Your task to perform on an android device: Open Youtube and go to the subscriptions tab Image 0: 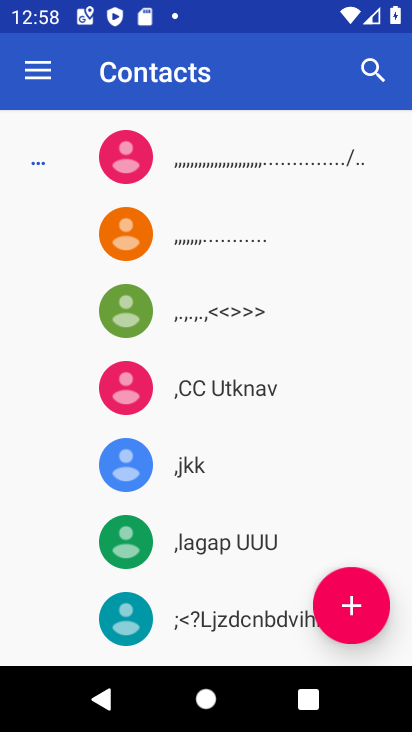
Step 0: press home button
Your task to perform on an android device: Open Youtube and go to the subscriptions tab Image 1: 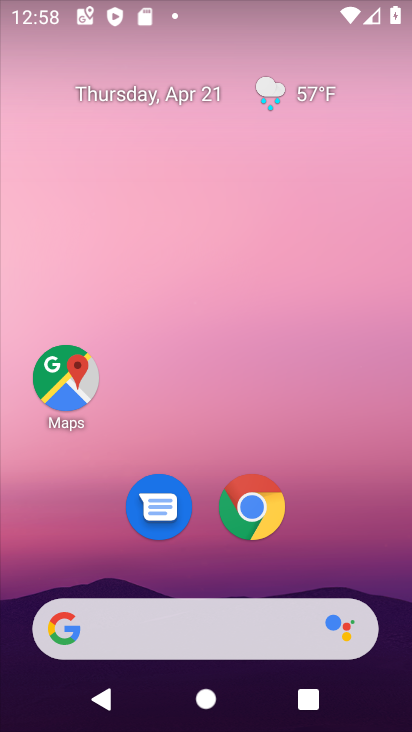
Step 1: drag from (202, 458) to (275, 1)
Your task to perform on an android device: Open Youtube and go to the subscriptions tab Image 2: 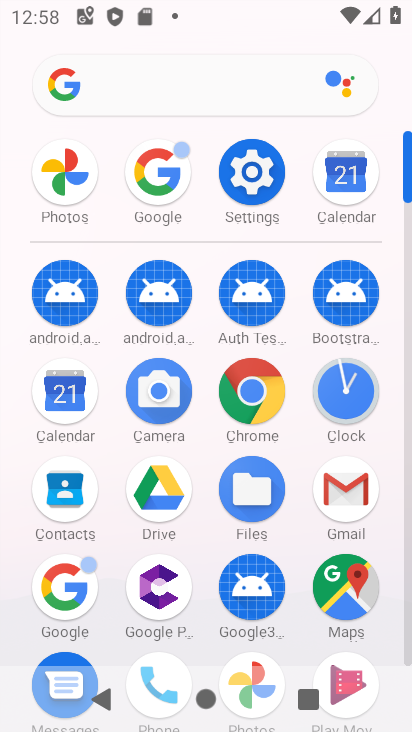
Step 2: drag from (207, 535) to (207, 192)
Your task to perform on an android device: Open Youtube and go to the subscriptions tab Image 3: 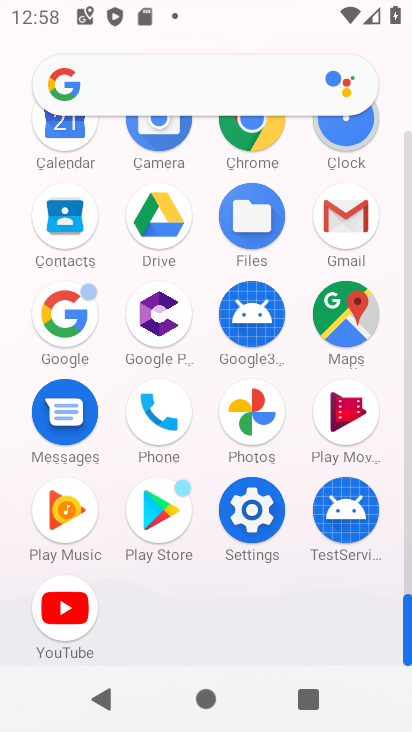
Step 3: click (67, 610)
Your task to perform on an android device: Open Youtube and go to the subscriptions tab Image 4: 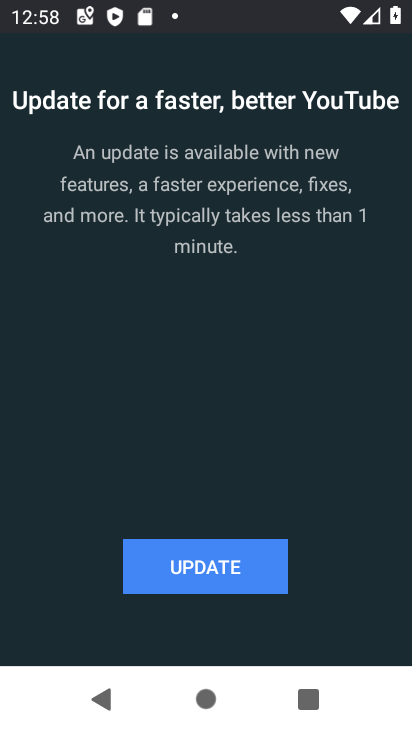
Step 4: click (192, 564)
Your task to perform on an android device: Open Youtube and go to the subscriptions tab Image 5: 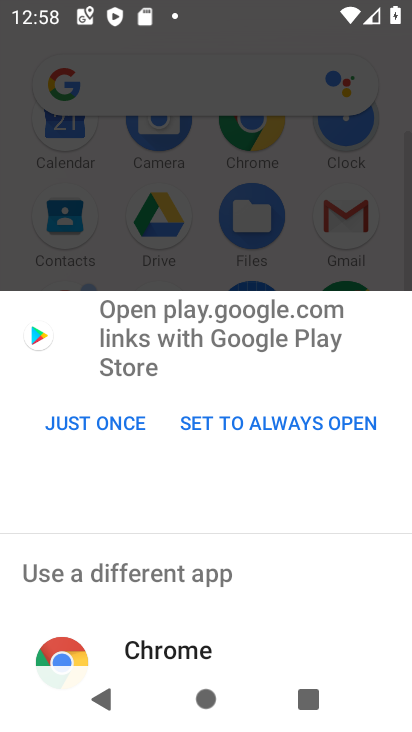
Step 5: click (93, 420)
Your task to perform on an android device: Open Youtube and go to the subscriptions tab Image 6: 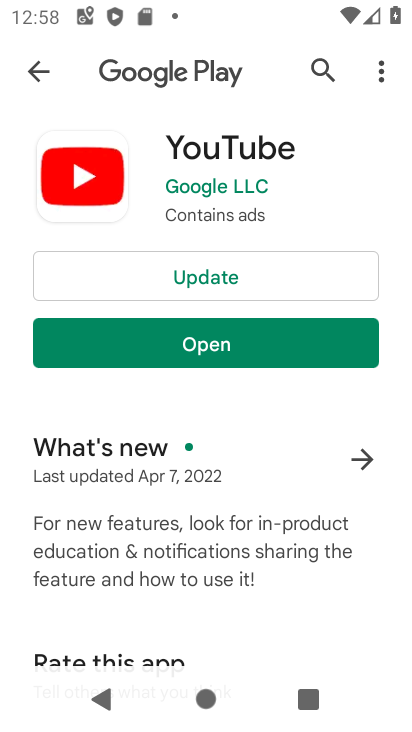
Step 6: click (205, 277)
Your task to perform on an android device: Open Youtube and go to the subscriptions tab Image 7: 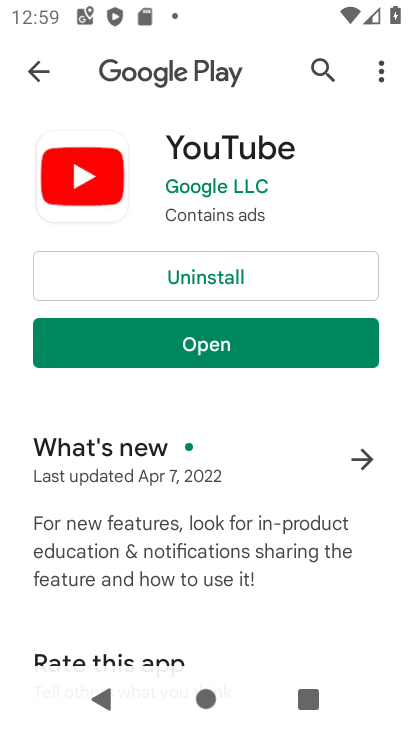
Step 7: click (226, 345)
Your task to perform on an android device: Open Youtube and go to the subscriptions tab Image 8: 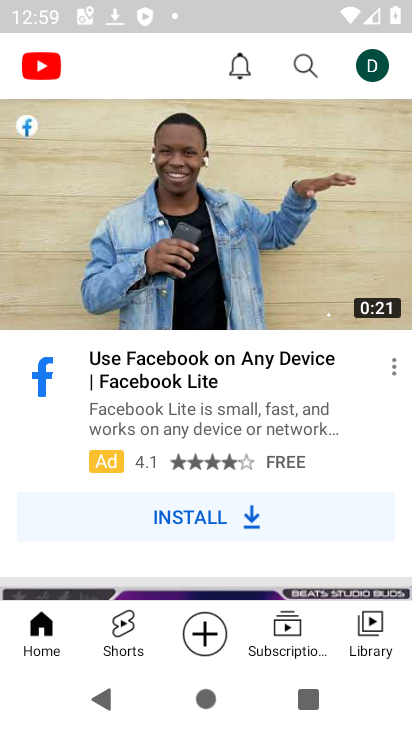
Step 8: click (284, 626)
Your task to perform on an android device: Open Youtube and go to the subscriptions tab Image 9: 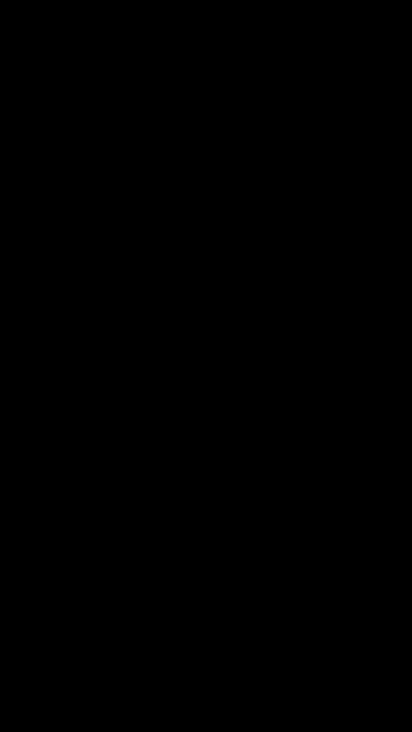
Step 9: task complete